Your task to perform on an android device: Go to Amazon Image 0: 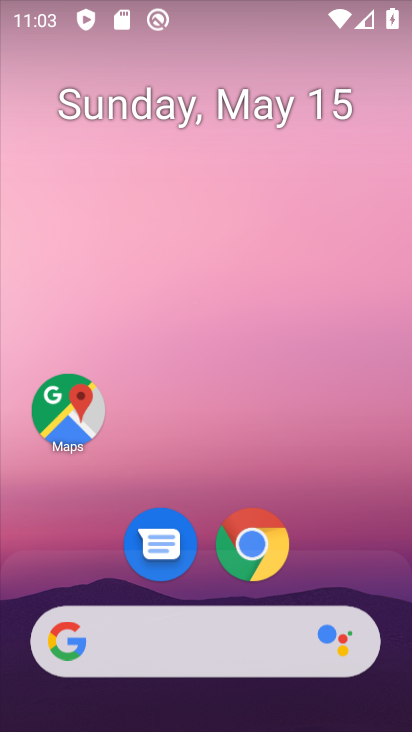
Step 0: click (258, 547)
Your task to perform on an android device: Go to Amazon Image 1: 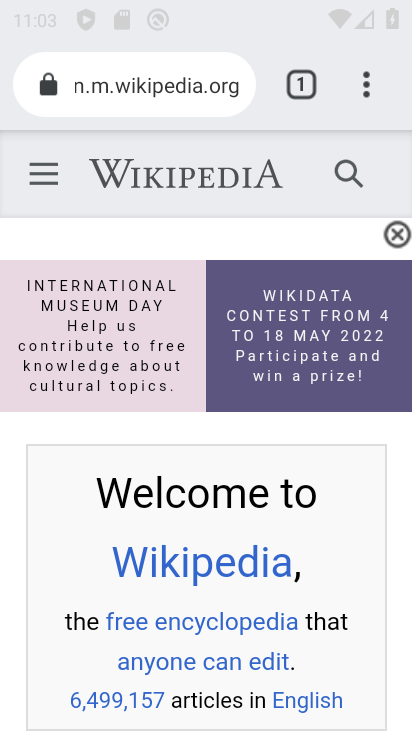
Step 1: click (298, 85)
Your task to perform on an android device: Go to Amazon Image 2: 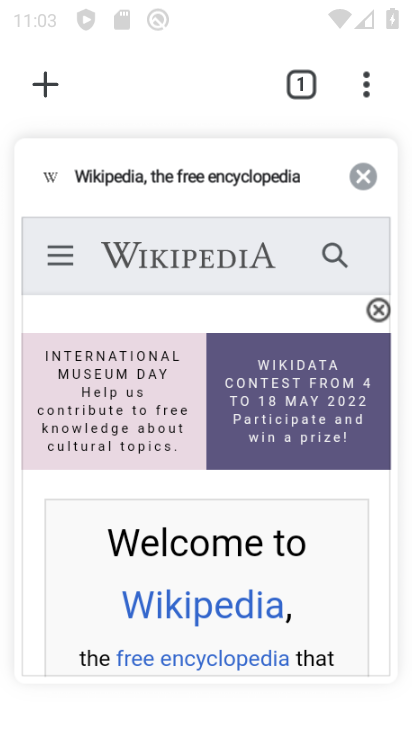
Step 2: click (60, 87)
Your task to perform on an android device: Go to Amazon Image 3: 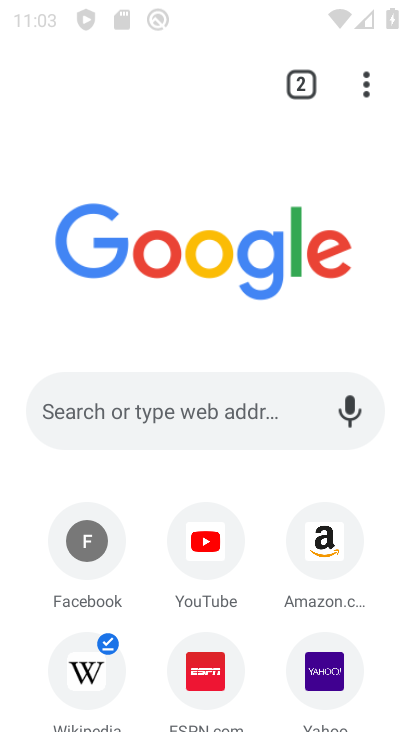
Step 3: click (331, 527)
Your task to perform on an android device: Go to Amazon Image 4: 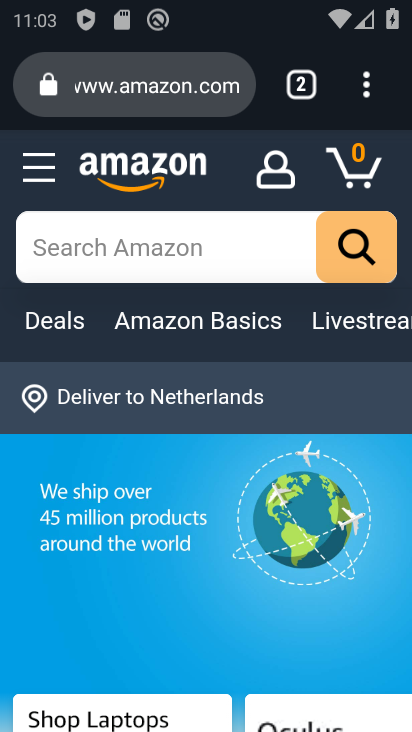
Step 4: task complete